Your task to perform on an android device: Add panasonic triple a to the cart on ebay.com Image 0: 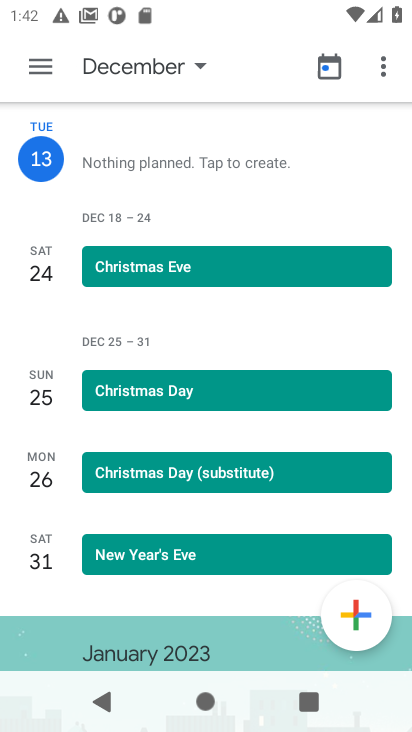
Step 0: press home button
Your task to perform on an android device: Add panasonic triple a to the cart on ebay.com Image 1: 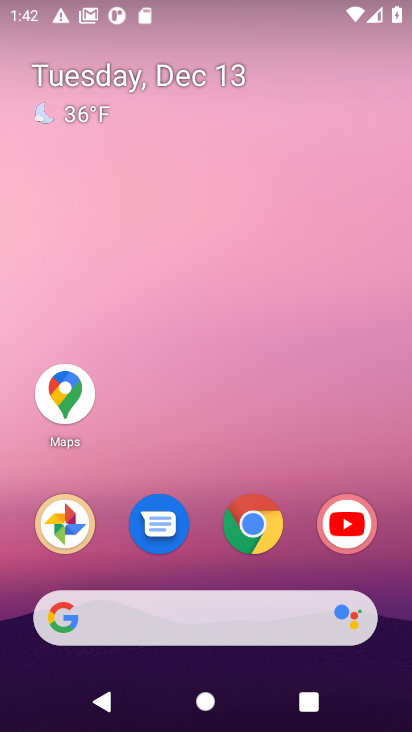
Step 1: click (260, 544)
Your task to perform on an android device: Add panasonic triple a to the cart on ebay.com Image 2: 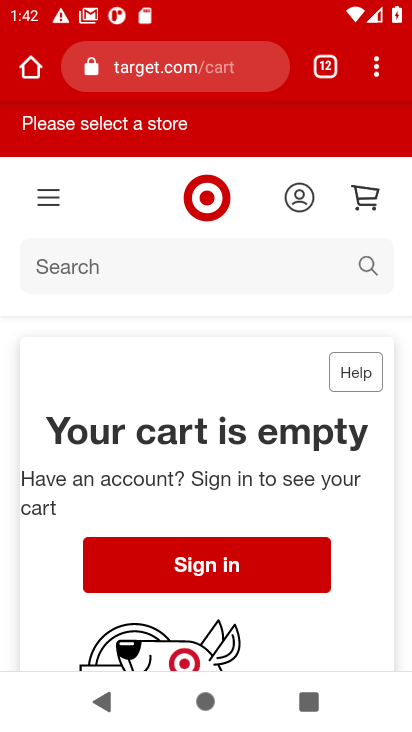
Step 2: click (148, 68)
Your task to perform on an android device: Add panasonic triple a to the cart on ebay.com Image 3: 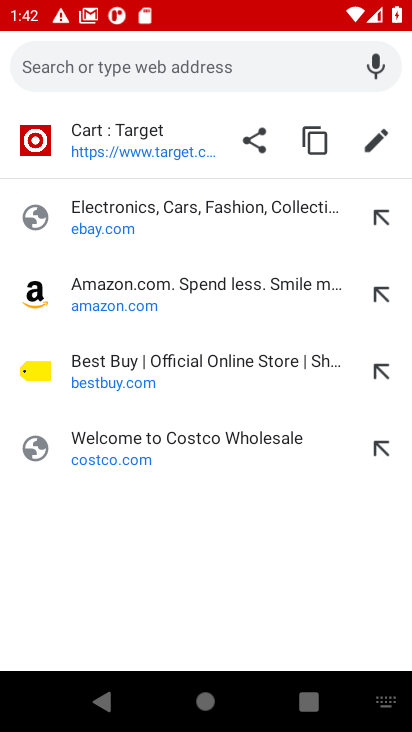
Step 3: click (94, 219)
Your task to perform on an android device: Add panasonic triple a to the cart on ebay.com Image 4: 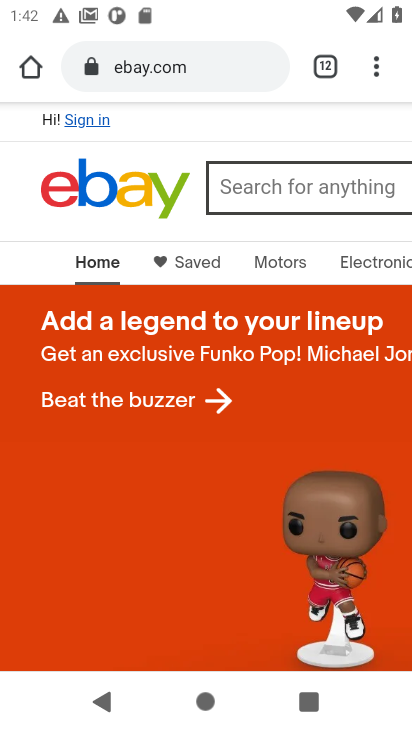
Step 4: click (247, 197)
Your task to perform on an android device: Add panasonic triple a to the cart on ebay.com Image 5: 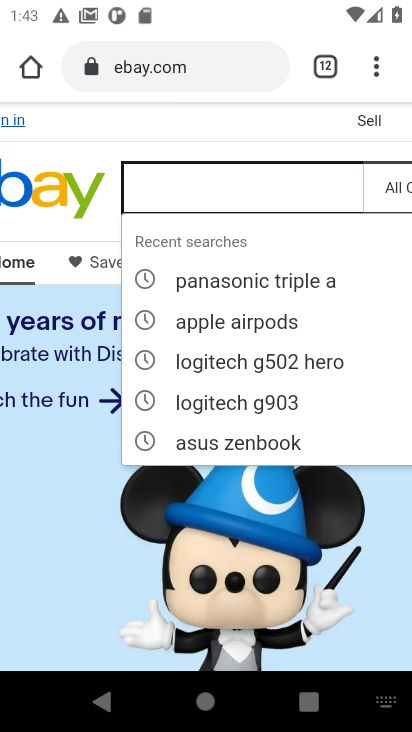
Step 5: type "panasonic triple a"
Your task to perform on an android device: Add panasonic triple a to the cart on ebay.com Image 6: 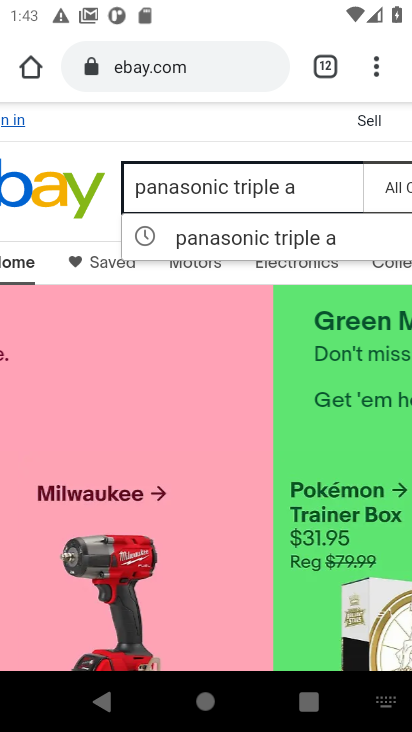
Step 6: click (264, 242)
Your task to perform on an android device: Add panasonic triple a to the cart on ebay.com Image 7: 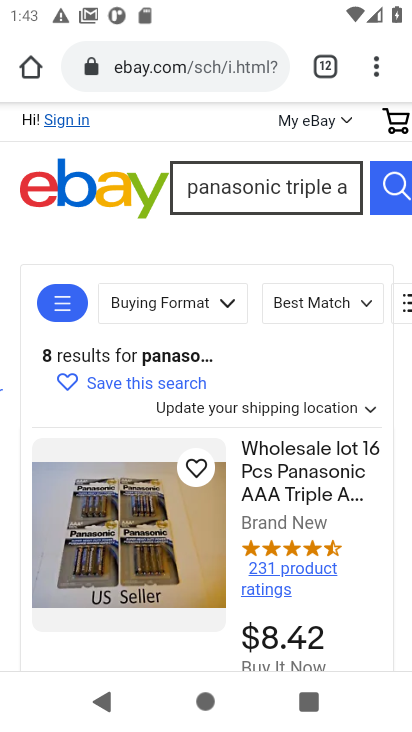
Step 7: click (319, 474)
Your task to perform on an android device: Add panasonic triple a to the cart on ebay.com Image 8: 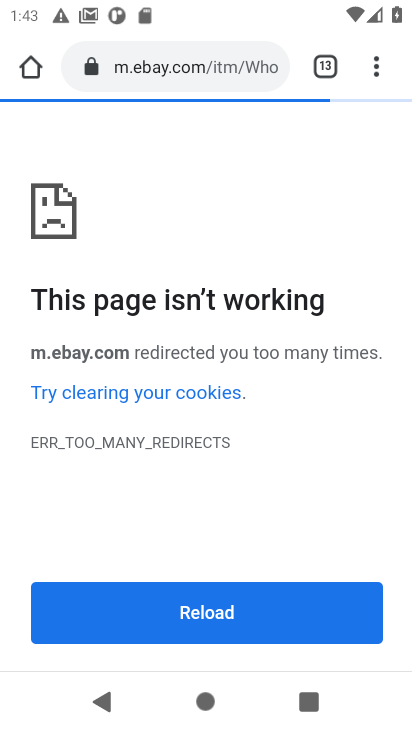
Step 8: task complete